Your task to perform on an android device: Open settings on Google Maps Image 0: 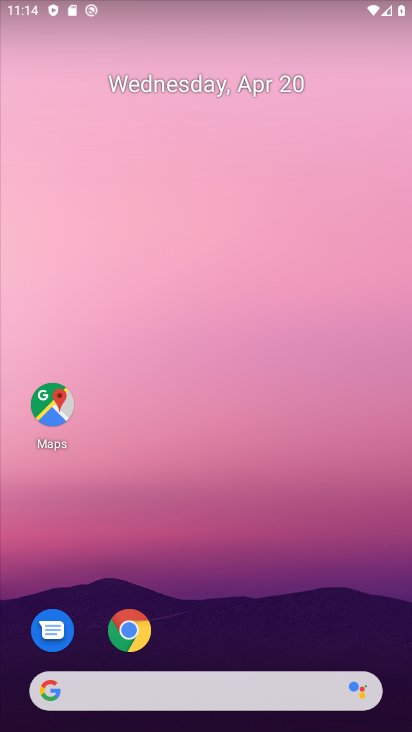
Step 0: drag from (263, 318) to (329, 98)
Your task to perform on an android device: Open settings on Google Maps Image 1: 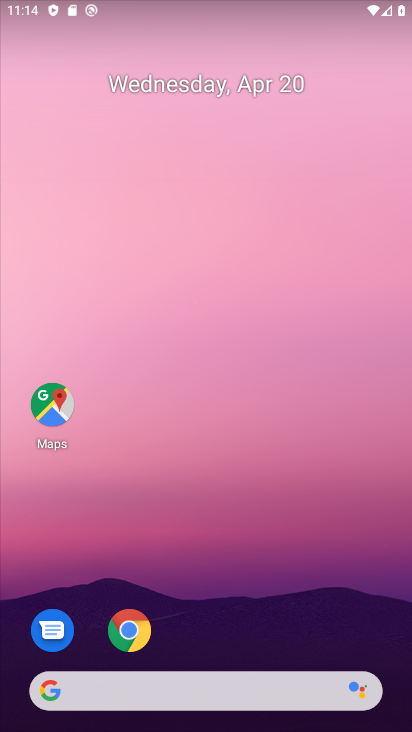
Step 1: drag from (223, 657) to (351, 48)
Your task to perform on an android device: Open settings on Google Maps Image 2: 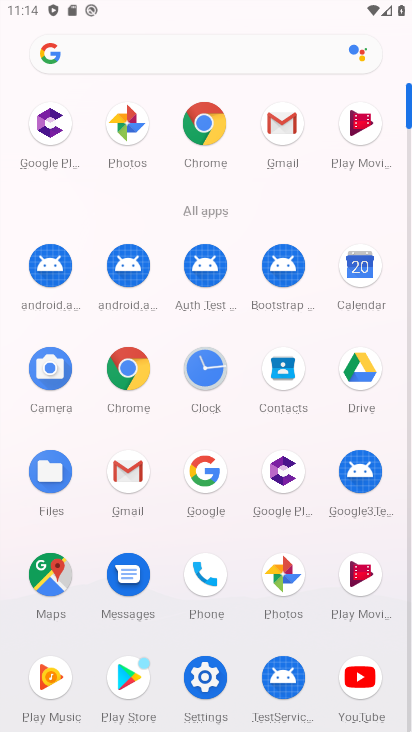
Step 2: click (37, 565)
Your task to perform on an android device: Open settings on Google Maps Image 3: 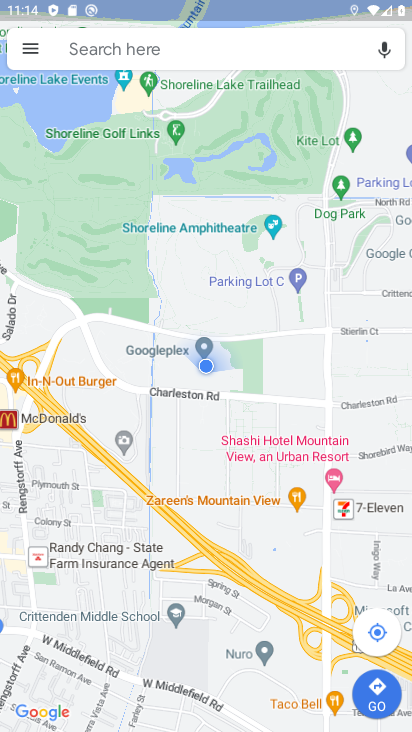
Step 3: click (31, 46)
Your task to perform on an android device: Open settings on Google Maps Image 4: 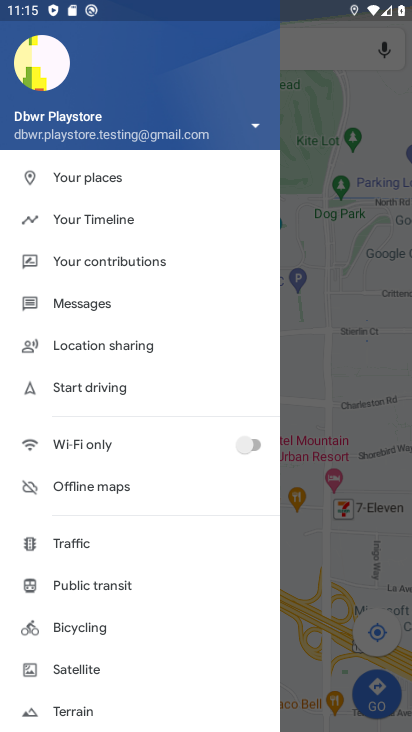
Step 4: drag from (142, 535) to (236, 235)
Your task to perform on an android device: Open settings on Google Maps Image 5: 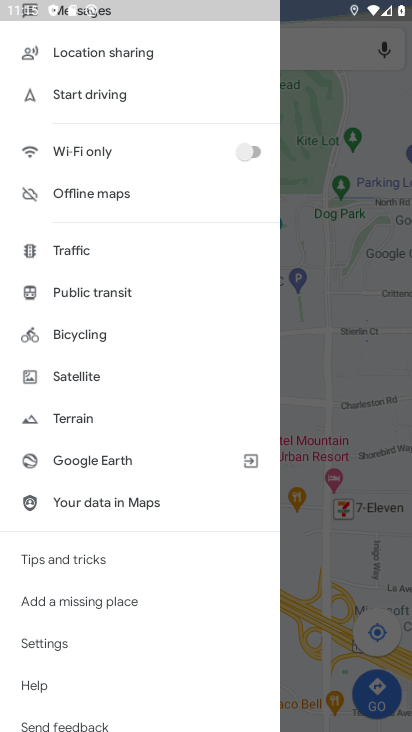
Step 5: click (80, 647)
Your task to perform on an android device: Open settings on Google Maps Image 6: 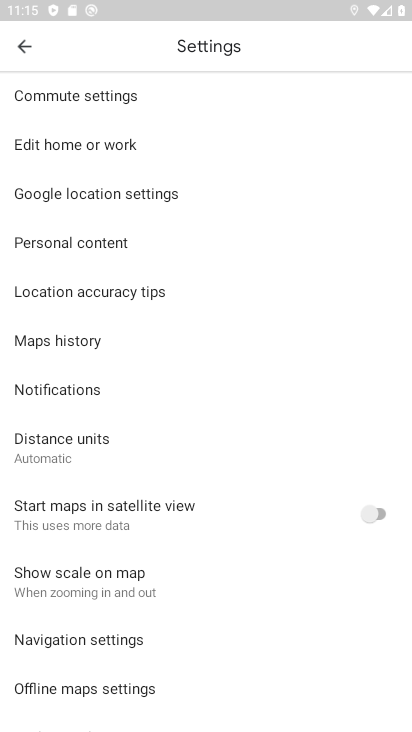
Step 6: task complete